Your task to perform on an android device: toggle notification dots Image 0: 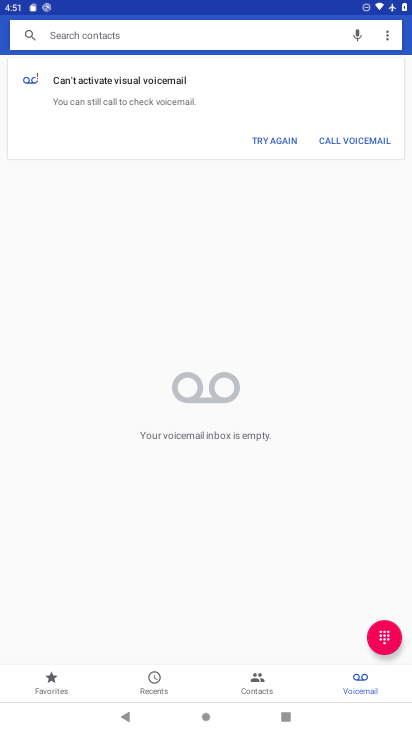
Step 0: press home button
Your task to perform on an android device: toggle notification dots Image 1: 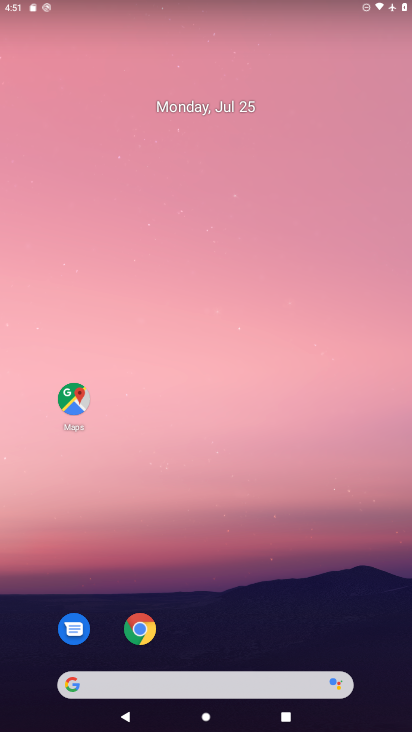
Step 1: drag from (307, 622) to (348, 38)
Your task to perform on an android device: toggle notification dots Image 2: 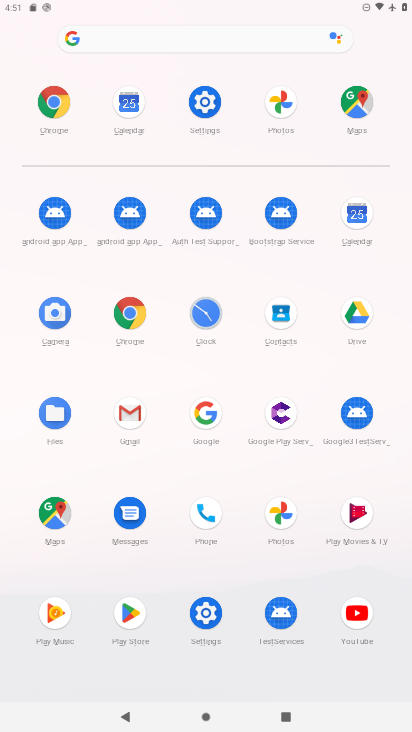
Step 2: click (205, 93)
Your task to perform on an android device: toggle notification dots Image 3: 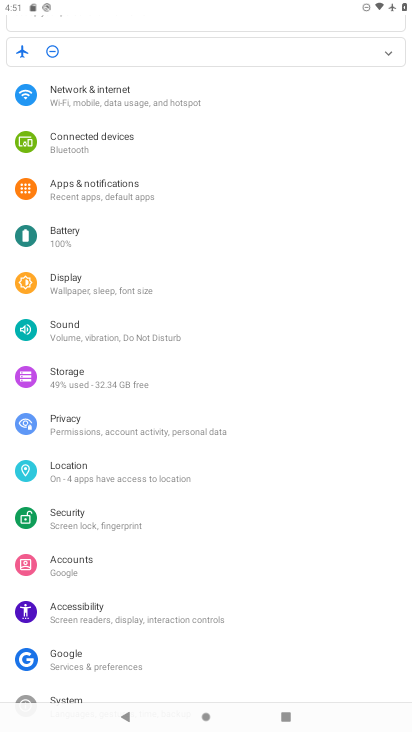
Step 3: click (99, 195)
Your task to perform on an android device: toggle notification dots Image 4: 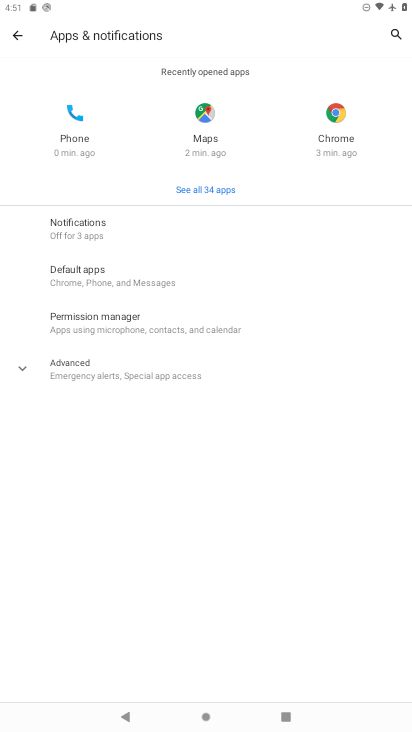
Step 4: click (80, 229)
Your task to perform on an android device: toggle notification dots Image 5: 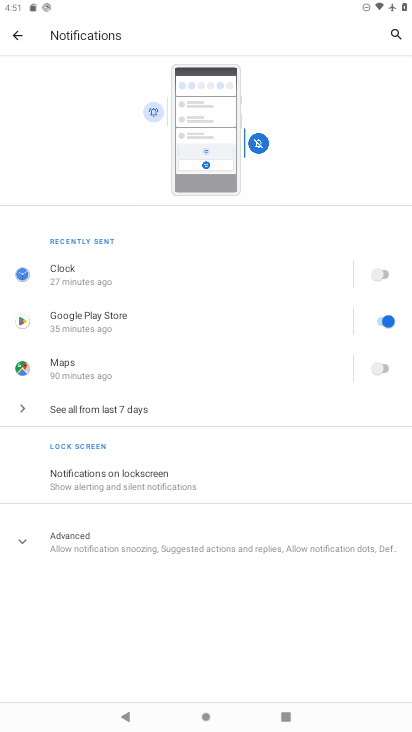
Step 5: click (122, 543)
Your task to perform on an android device: toggle notification dots Image 6: 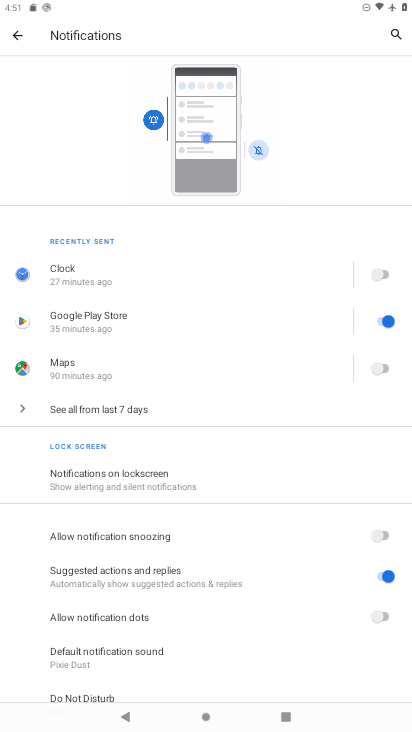
Step 6: click (384, 619)
Your task to perform on an android device: toggle notification dots Image 7: 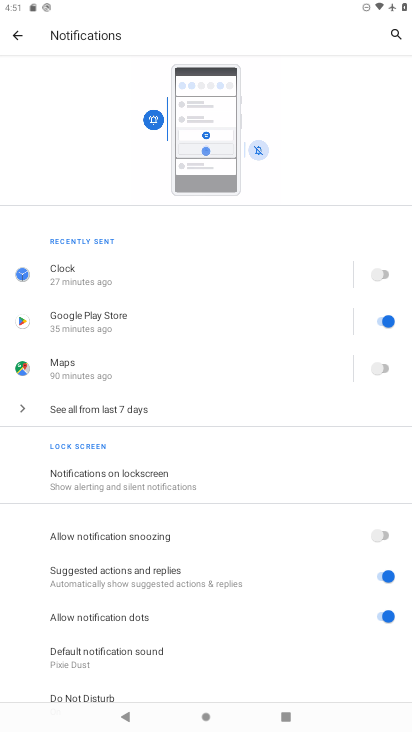
Step 7: task complete